Your task to perform on an android device: check google app version Image 0: 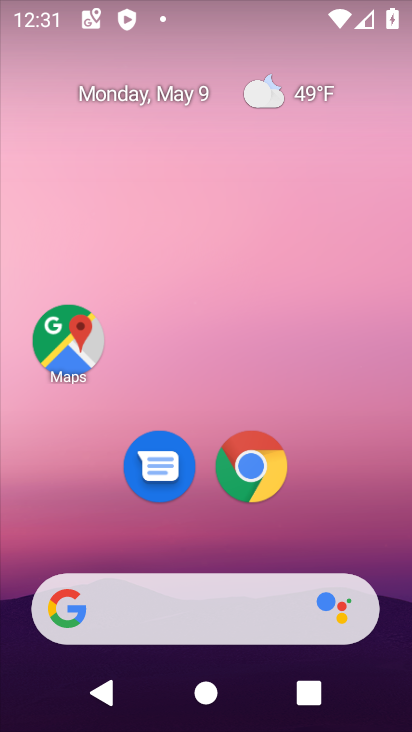
Step 0: click (264, 473)
Your task to perform on an android device: check google app version Image 1: 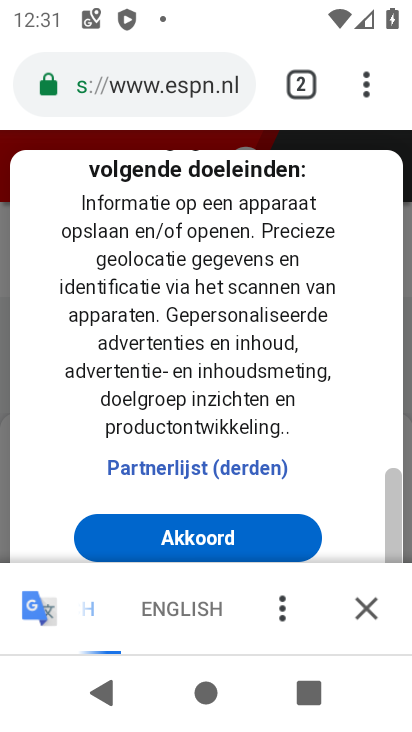
Step 1: drag from (360, 85) to (302, 572)
Your task to perform on an android device: check google app version Image 2: 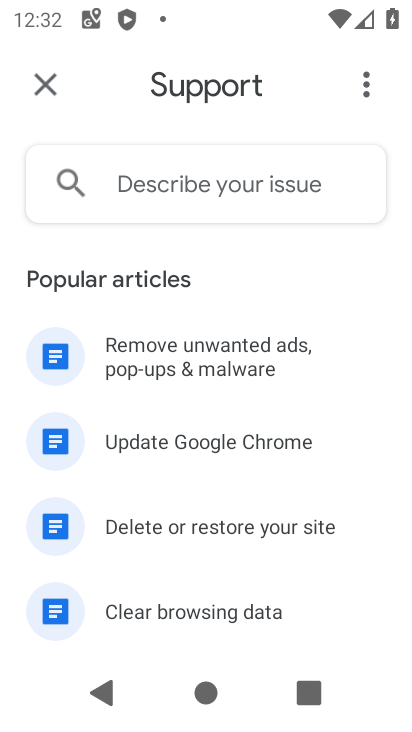
Step 2: click (377, 105)
Your task to perform on an android device: check google app version Image 3: 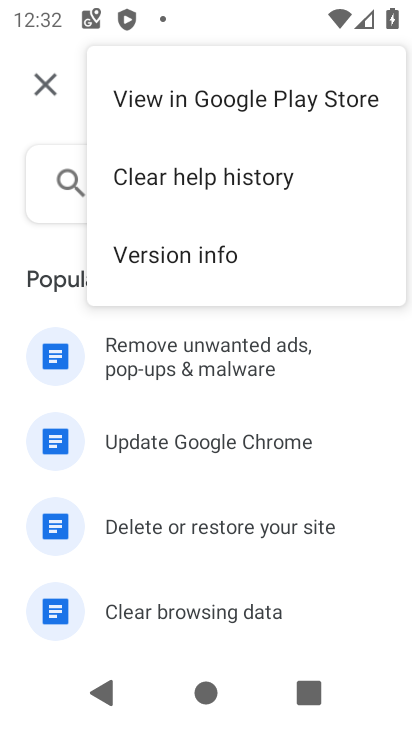
Step 3: click (332, 261)
Your task to perform on an android device: check google app version Image 4: 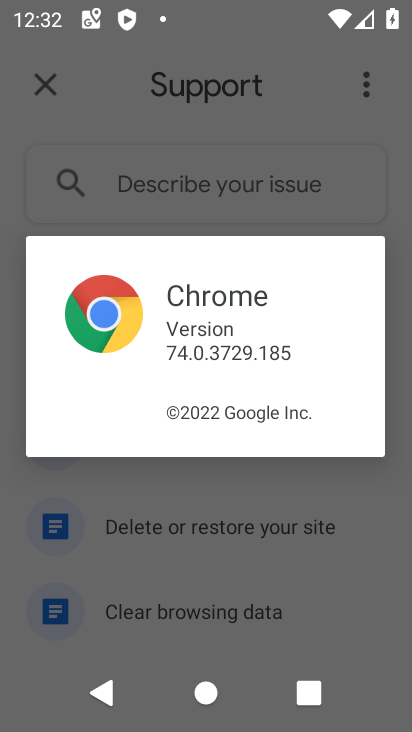
Step 4: task complete